Your task to perform on an android device: Open Maps and search for coffee Image 0: 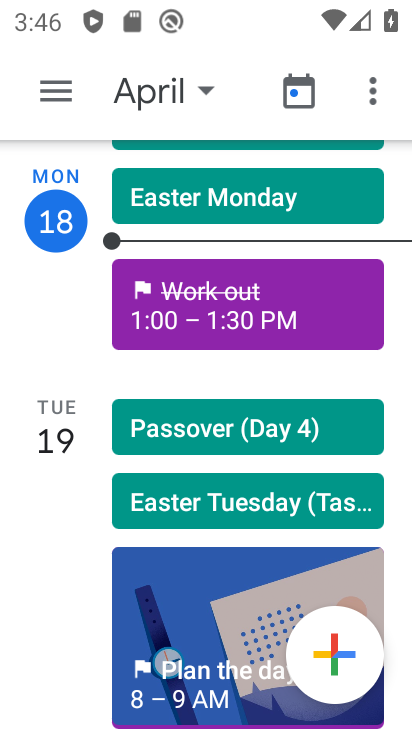
Step 0: press home button
Your task to perform on an android device: Open Maps and search for coffee Image 1: 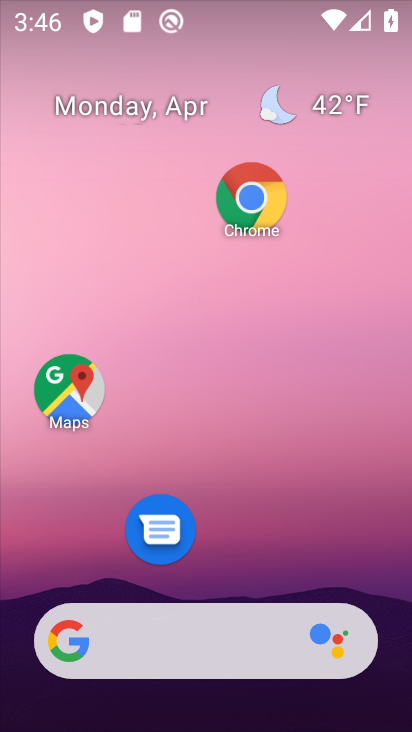
Step 1: click (88, 379)
Your task to perform on an android device: Open Maps and search for coffee Image 2: 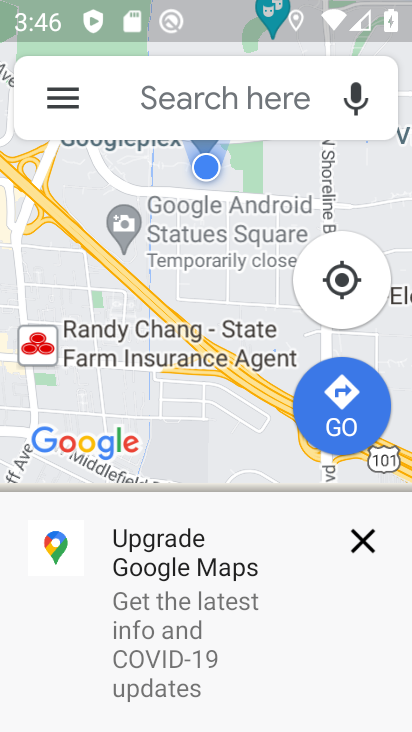
Step 2: click (194, 114)
Your task to perform on an android device: Open Maps and search for coffee Image 3: 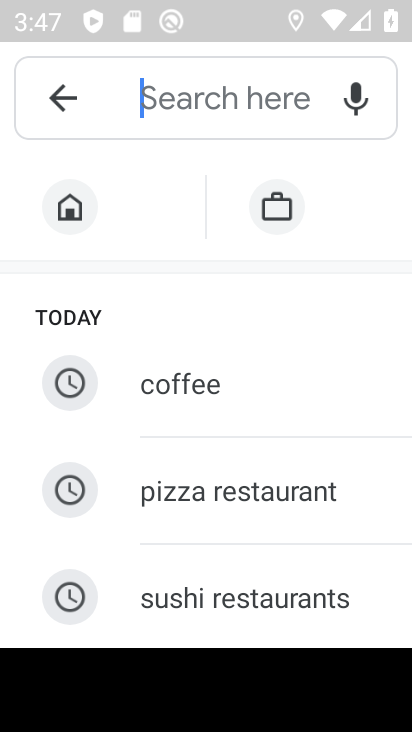
Step 3: type "coffee"
Your task to perform on an android device: Open Maps and search for coffee Image 4: 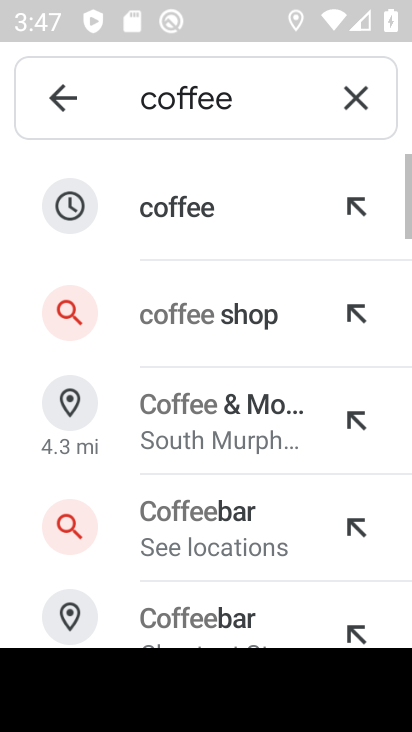
Step 4: click (173, 212)
Your task to perform on an android device: Open Maps and search for coffee Image 5: 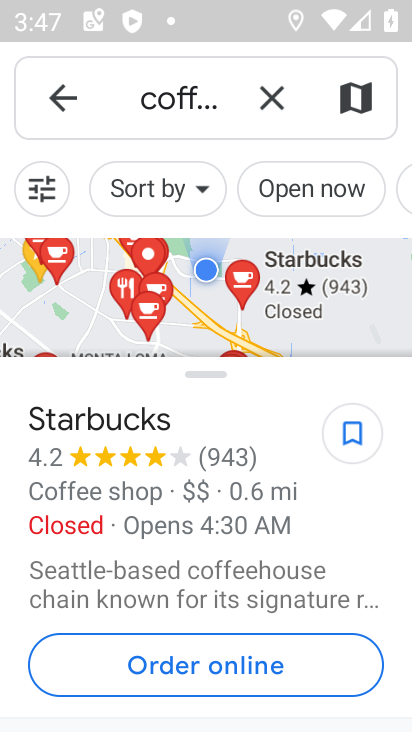
Step 5: task complete